Your task to perform on an android device: Go to display settings Image 0: 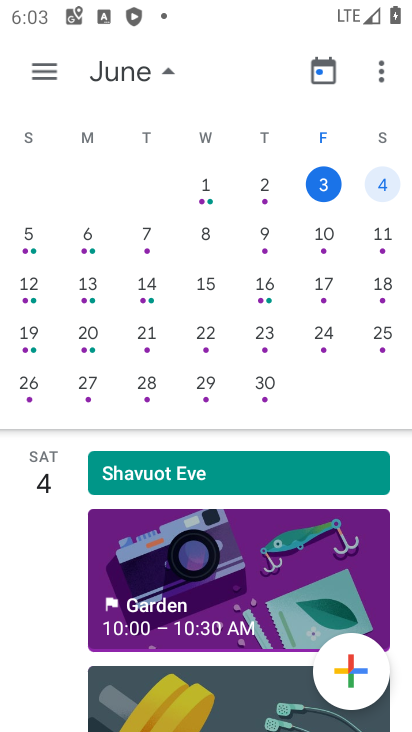
Step 0: press home button
Your task to perform on an android device: Go to display settings Image 1: 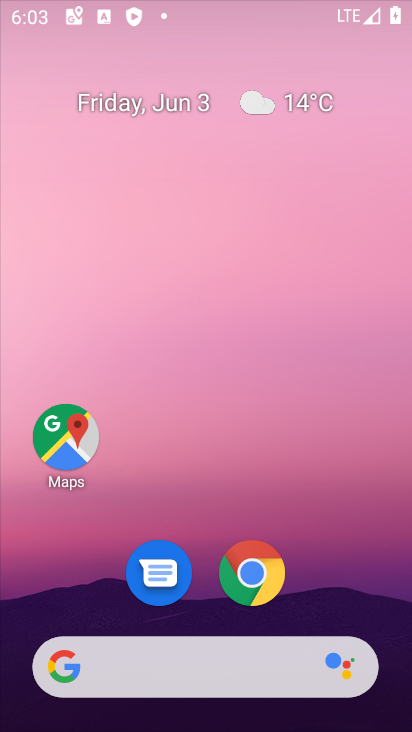
Step 1: drag from (290, 678) to (246, 104)
Your task to perform on an android device: Go to display settings Image 2: 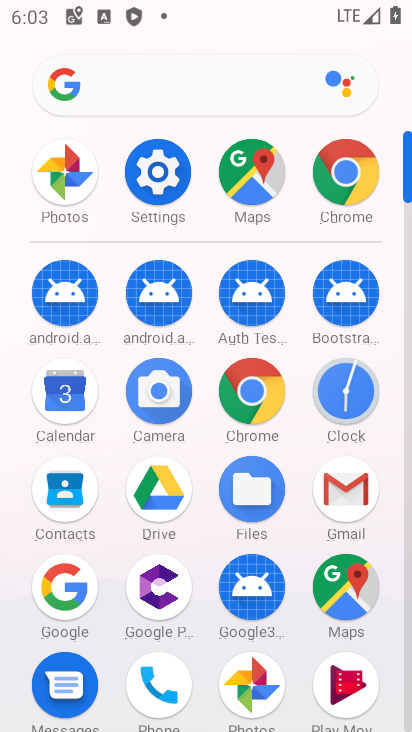
Step 2: click (159, 182)
Your task to perform on an android device: Go to display settings Image 3: 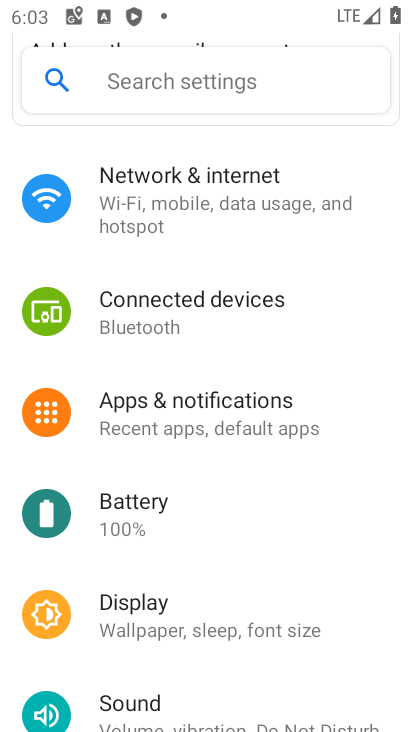
Step 3: click (185, 619)
Your task to perform on an android device: Go to display settings Image 4: 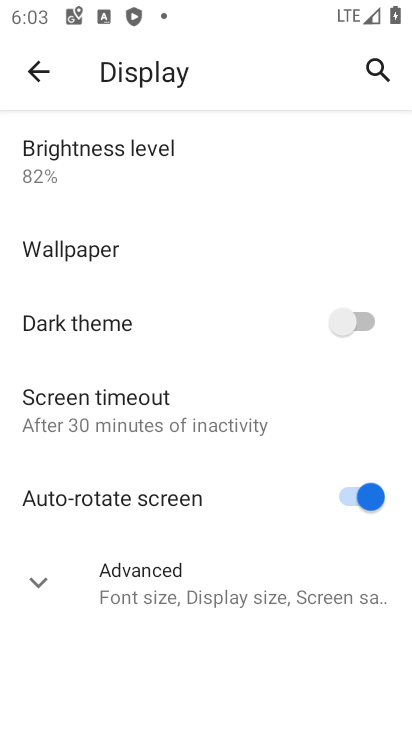
Step 4: task complete